Your task to perform on an android device: Play the last video I watched on Youtube Image 0: 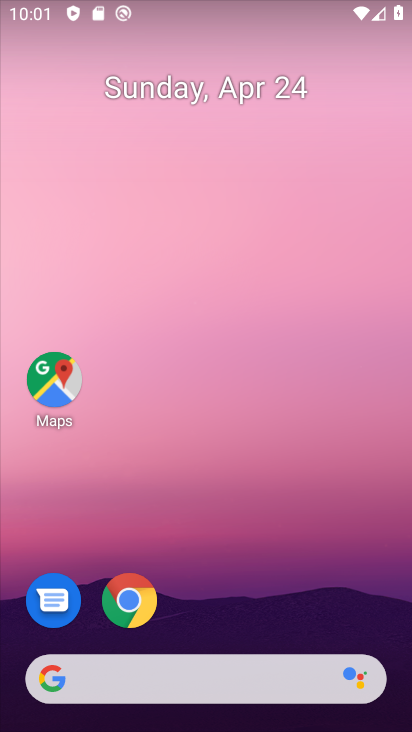
Step 0: drag from (229, 580) to (235, 47)
Your task to perform on an android device: Play the last video I watched on Youtube Image 1: 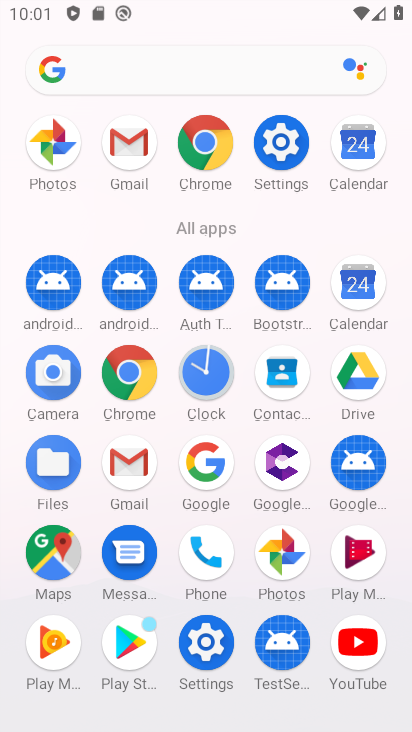
Step 1: click (363, 698)
Your task to perform on an android device: Play the last video I watched on Youtube Image 2: 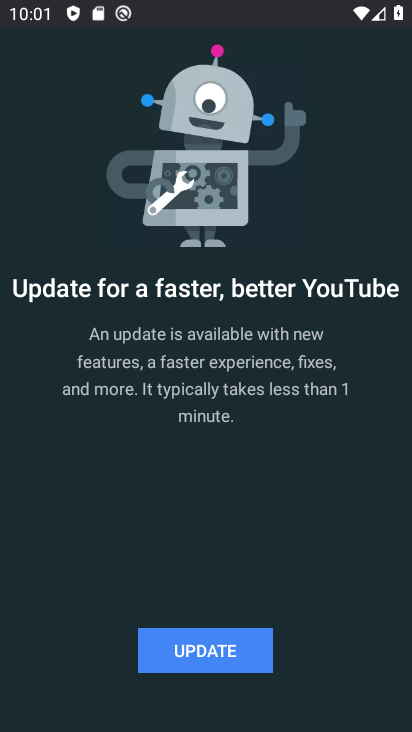
Step 2: click (212, 660)
Your task to perform on an android device: Play the last video I watched on Youtube Image 3: 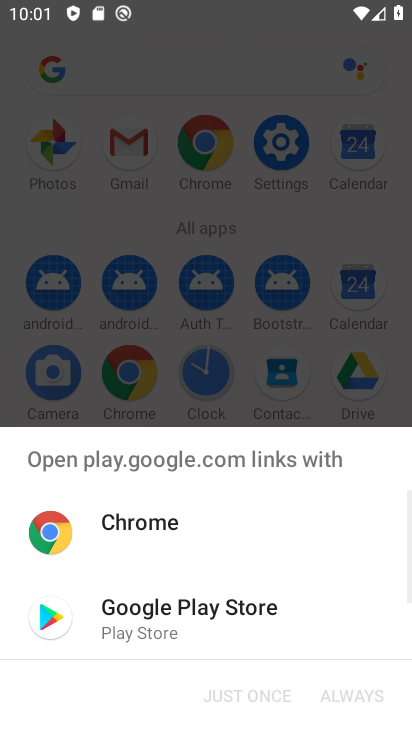
Step 3: click (135, 581)
Your task to perform on an android device: Play the last video I watched on Youtube Image 4: 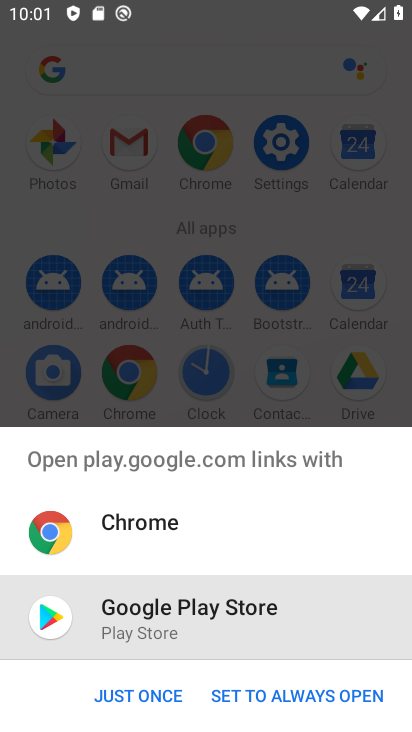
Step 4: click (136, 691)
Your task to perform on an android device: Play the last video I watched on Youtube Image 5: 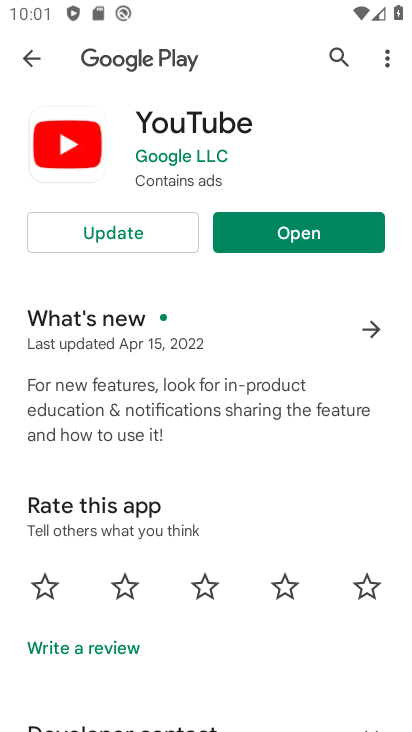
Step 5: click (137, 234)
Your task to perform on an android device: Play the last video I watched on Youtube Image 6: 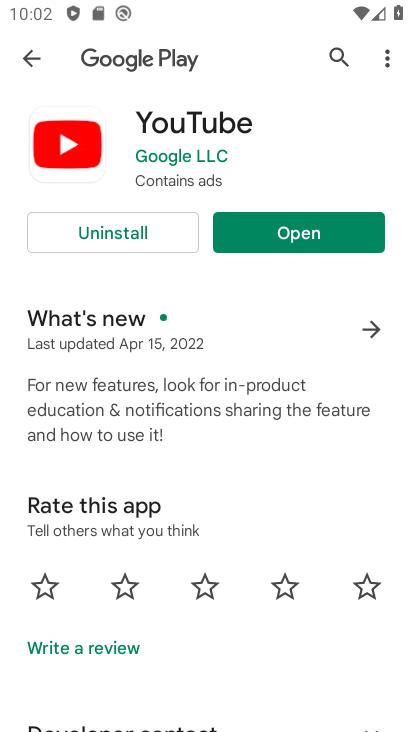
Step 6: click (288, 231)
Your task to perform on an android device: Play the last video I watched on Youtube Image 7: 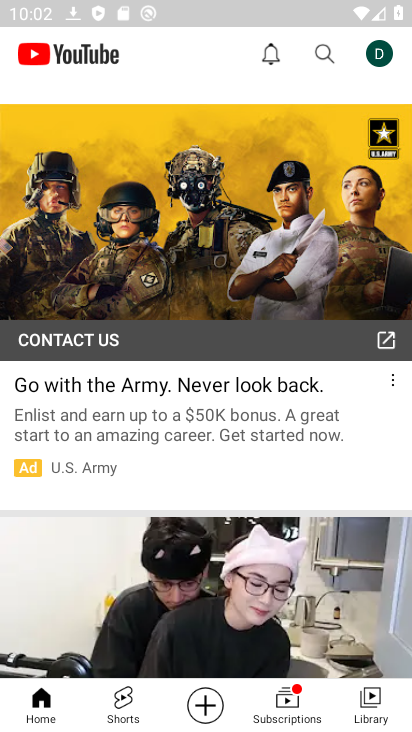
Step 7: click (364, 709)
Your task to perform on an android device: Play the last video I watched on Youtube Image 8: 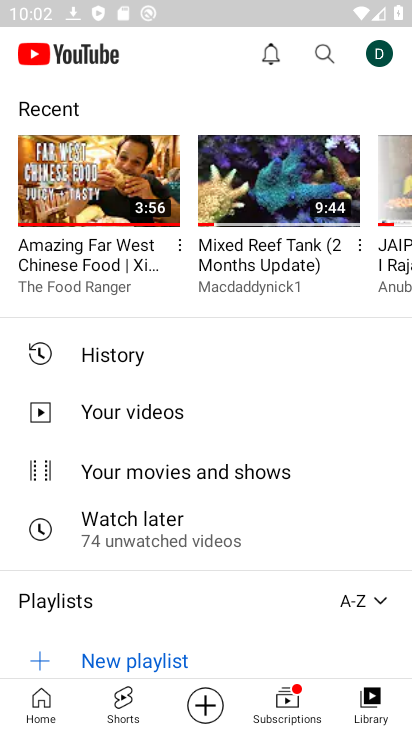
Step 8: click (129, 165)
Your task to perform on an android device: Play the last video I watched on Youtube Image 9: 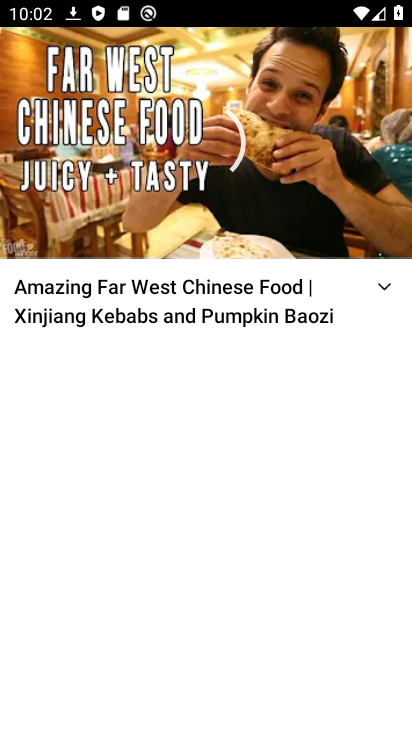
Step 9: task complete